Your task to perform on an android device: Go to Yahoo.com Image 0: 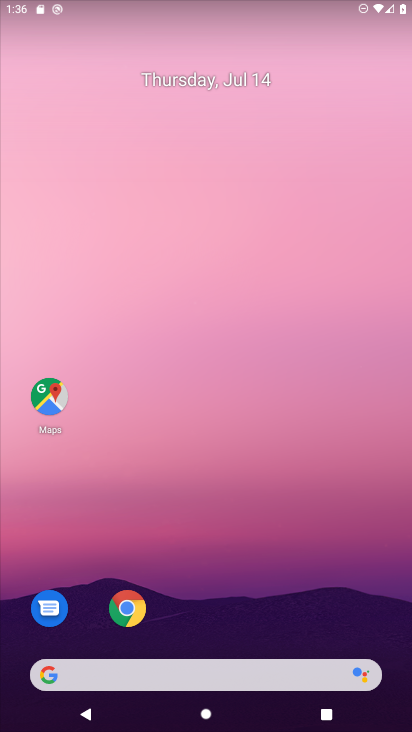
Step 0: click (130, 609)
Your task to perform on an android device: Go to Yahoo.com Image 1: 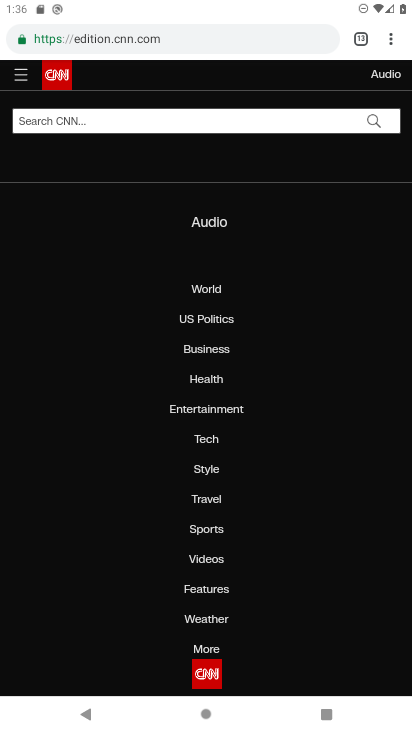
Step 1: click (392, 38)
Your task to perform on an android device: Go to Yahoo.com Image 2: 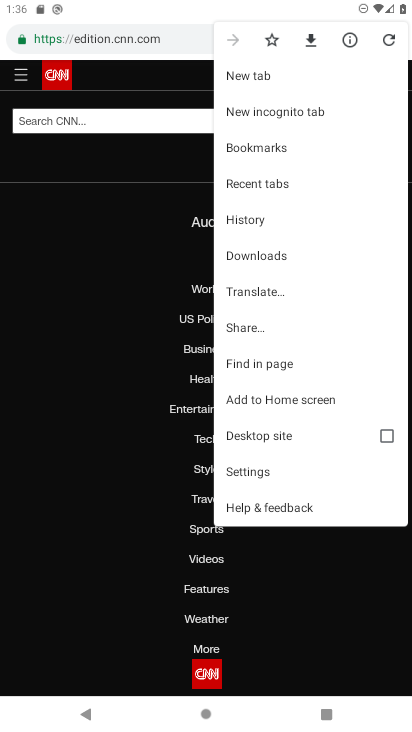
Step 2: click (251, 71)
Your task to perform on an android device: Go to Yahoo.com Image 3: 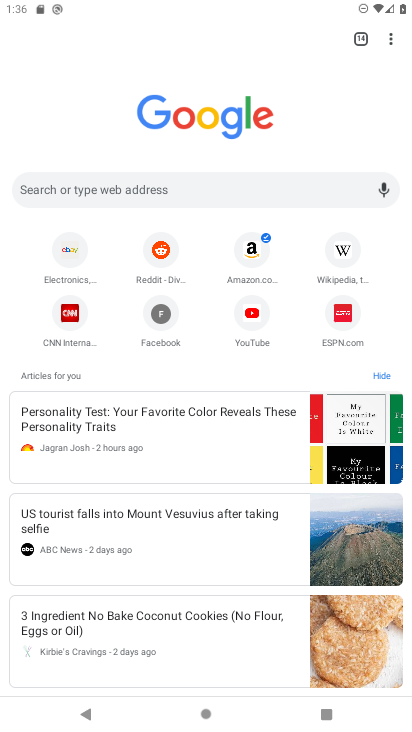
Step 3: click (201, 189)
Your task to perform on an android device: Go to Yahoo.com Image 4: 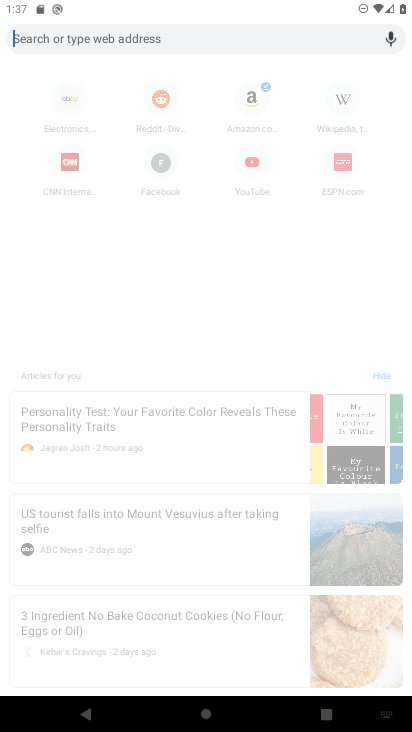
Step 4: type "Yahoo.com"
Your task to perform on an android device: Go to Yahoo.com Image 5: 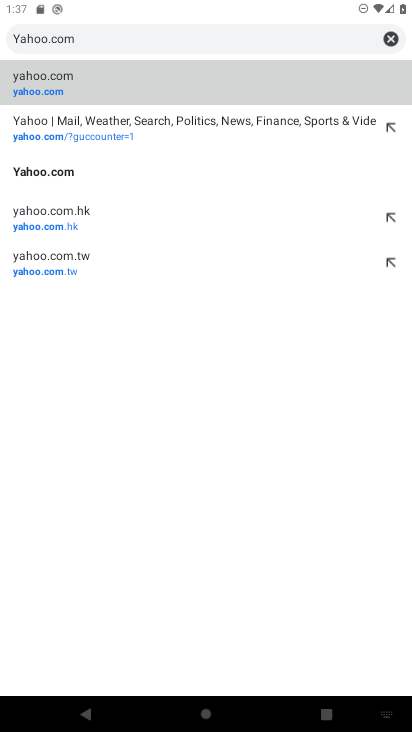
Step 5: click (51, 88)
Your task to perform on an android device: Go to Yahoo.com Image 6: 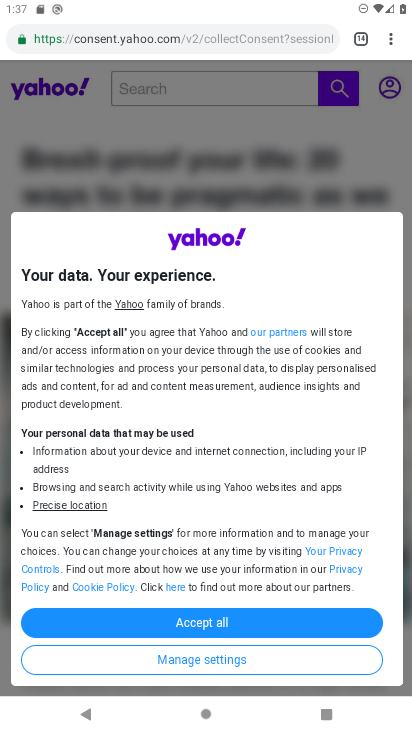
Step 6: task complete